Your task to perform on an android device: open sync settings in chrome Image 0: 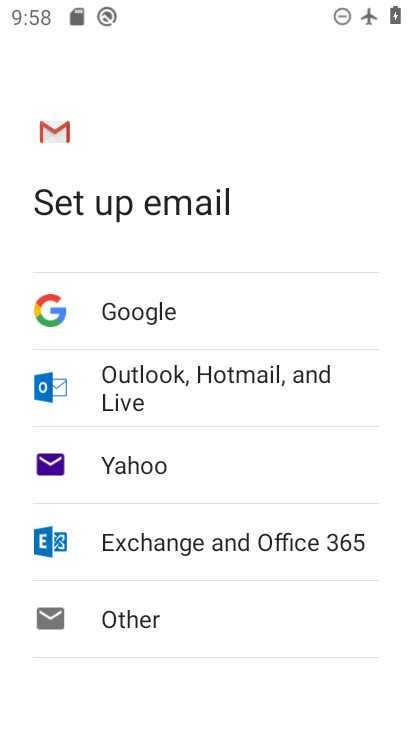
Step 0: press home button
Your task to perform on an android device: open sync settings in chrome Image 1: 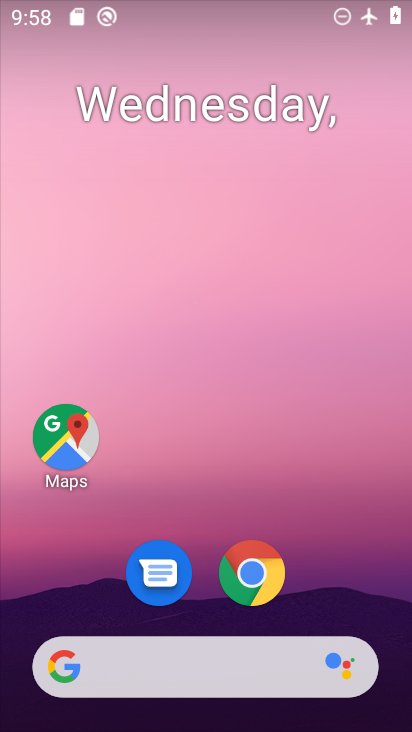
Step 1: drag from (367, 612) to (345, 189)
Your task to perform on an android device: open sync settings in chrome Image 2: 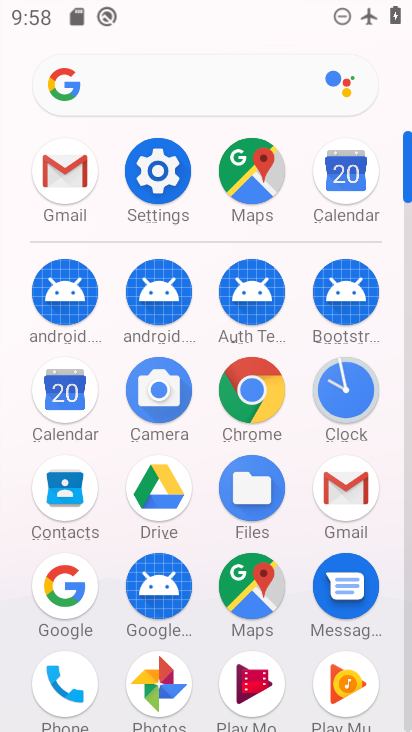
Step 2: click (150, 174)
Your task to perform on an android device: open sync settings in chrome Image 3: 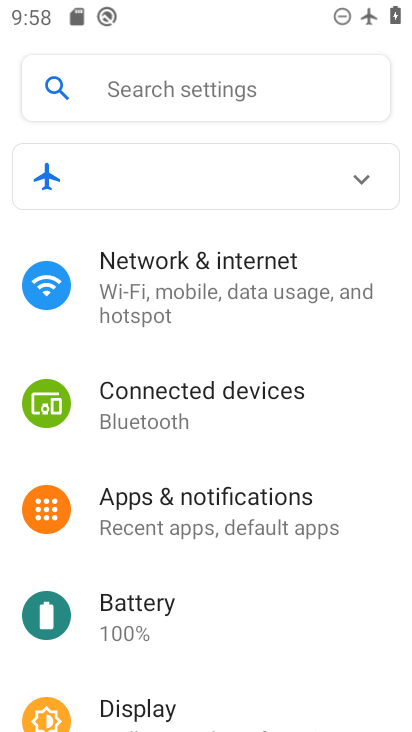
Step 3: click (359, 175)
Your task to perform on an android device: open sync settings in chrome Image 4: 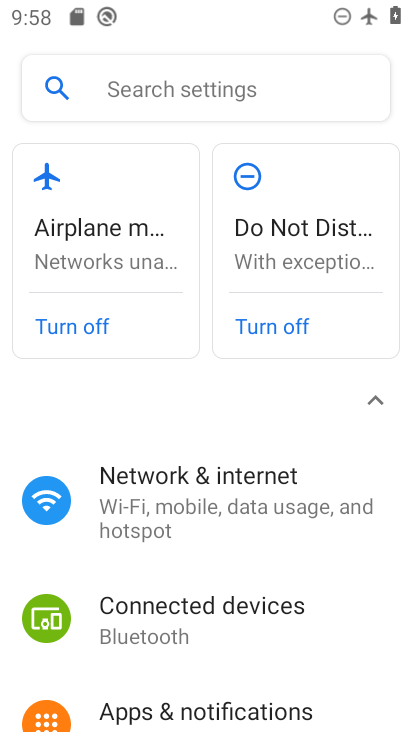
Step 4: click (81, 321)
Your task to perform on an android device: open sync settings in chrome Image 5: 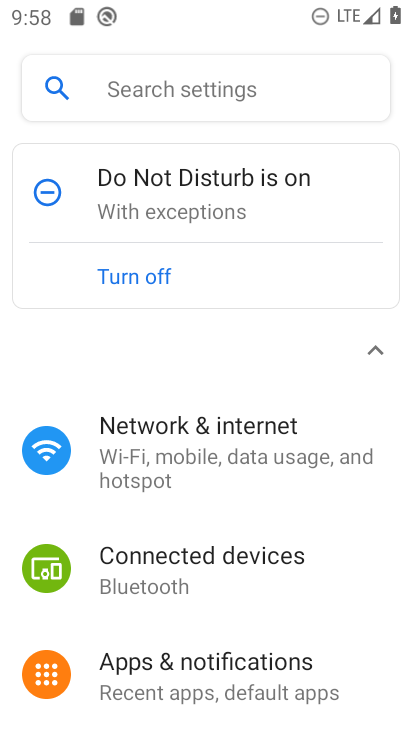
Step 5: click (130, 276)
Your task to perform on an android device: open sync settings in chrome Image 6: 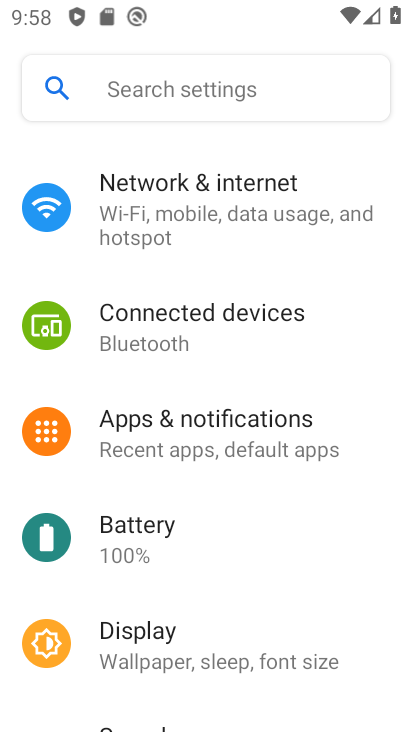
Step 6: click (165, 213)
Your task to perform on an android device: open sync settings in chrome Image 7: 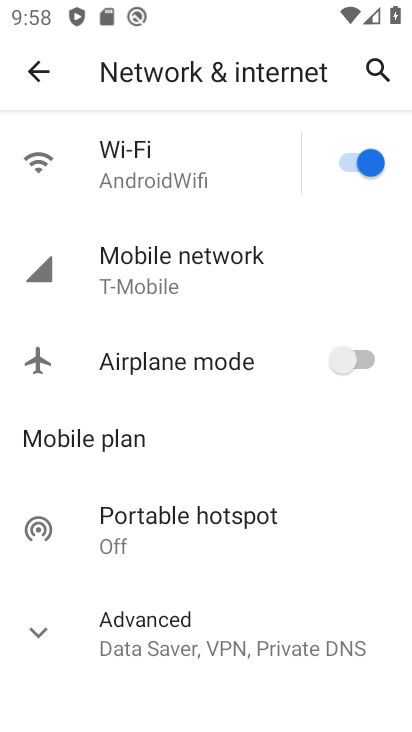
Step 7: click (30, 74)
Your task to perform on an android device: open sync settings in chrome Image 8: 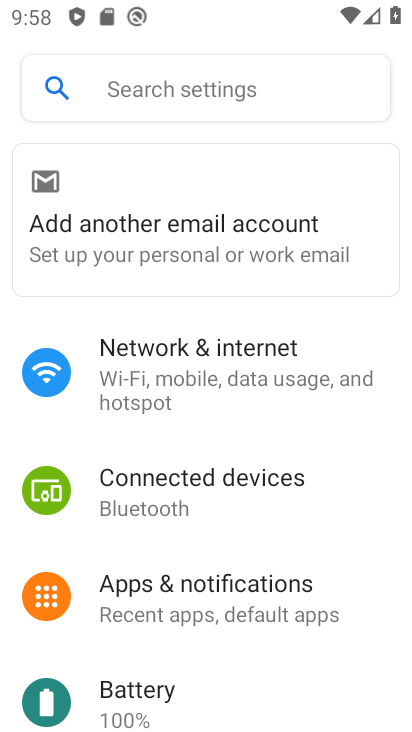
Step 8: press back button
Your task to perform on an android device: open sync settings in chrome Image 9: 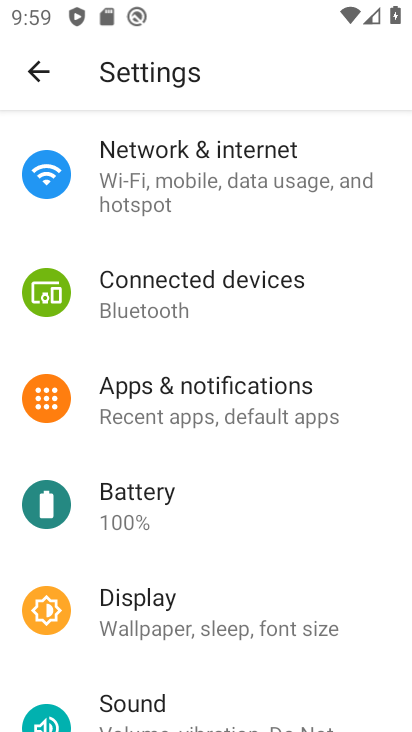
Step 9: press back button
Your task to perform on an android device: open sync settings in chrome Image 10: 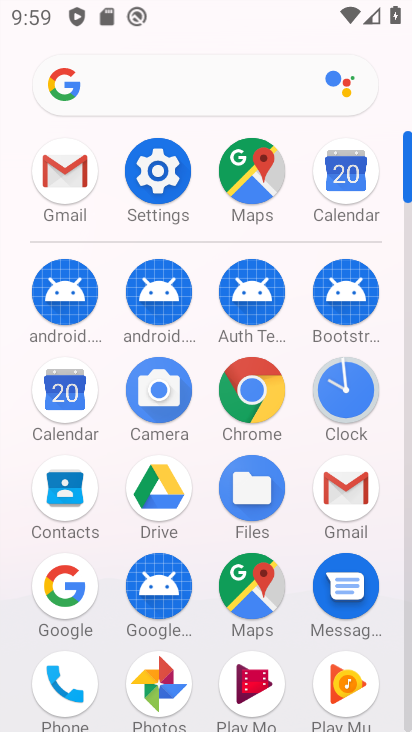
Step 10: click (241, 410)
Your task to perform on an android device: open sync settings in chrome Image 11: 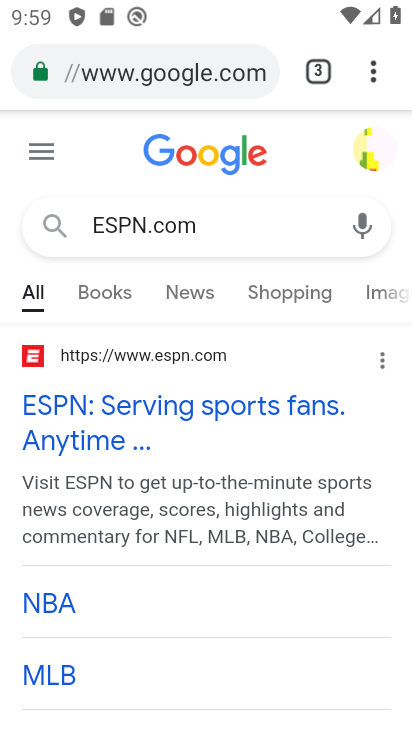
Step 11: click (371, 69)
Your task to perform on an android device: open sync settings in chrome Image 12: 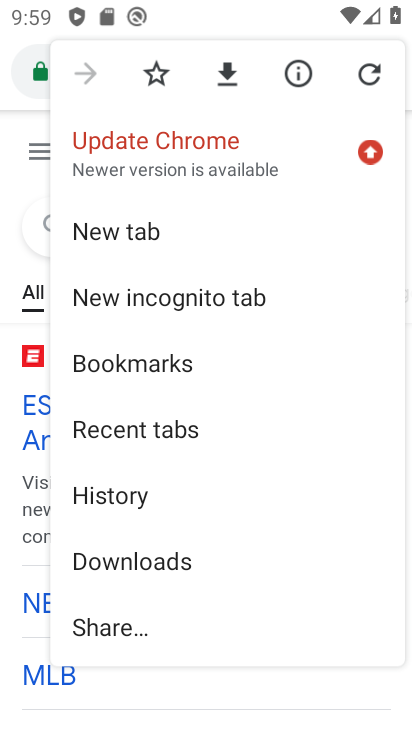
Step 12: drag from (303, 590) to (312, 327)
Your task to perform on an android device: open sync settings in chrome Image 13: 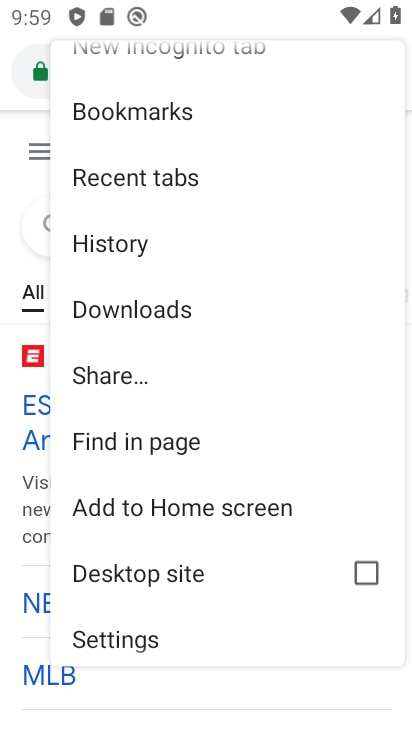
Step 13: click (119, 637)
Your task to perform on an android device: open sync settings in chrome Image 14: 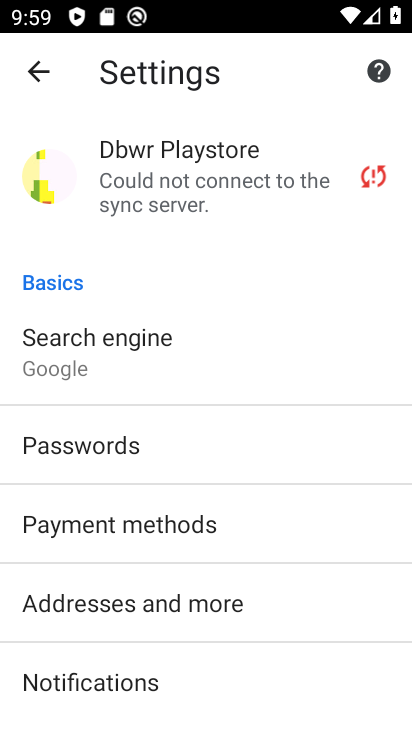
Step 14: click (272, 275)
Your task to perform on an android device: open sync settings in chrome Image 15: 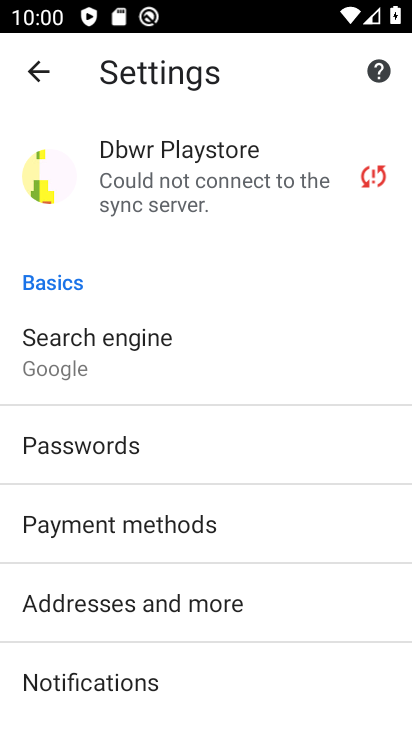
Step 15: drag from (308, 430) to (325, 237)
Your task to perform on an android device: open sync settings in chrome Image 16: 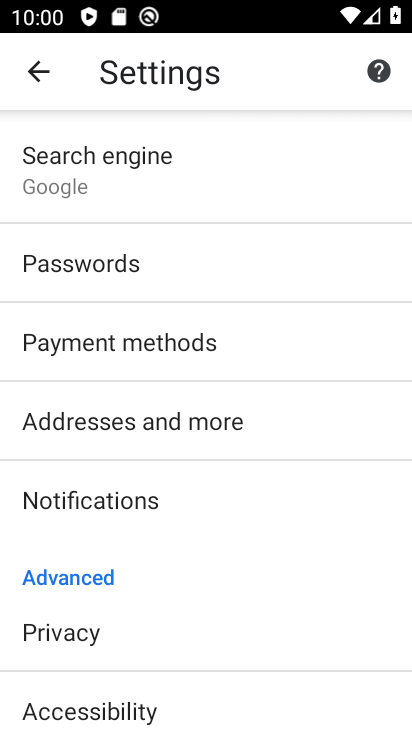
Step 16: click (59, 627)
Your task to perform on an android device: open sync settings in chrome Image 17: 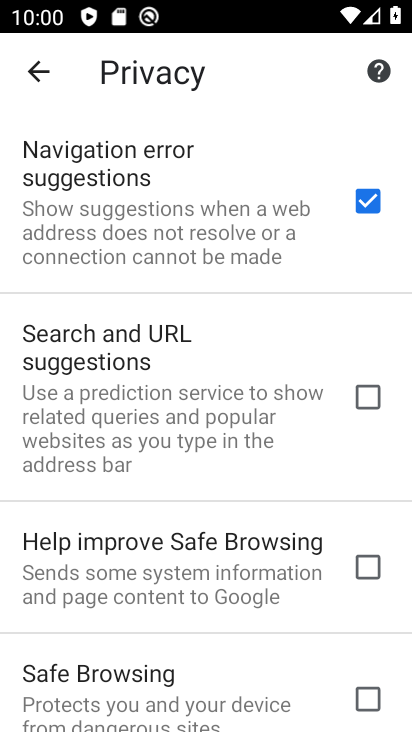
Step 17: task complete